Your task to perform on an android device: Go to eBay Image 0: 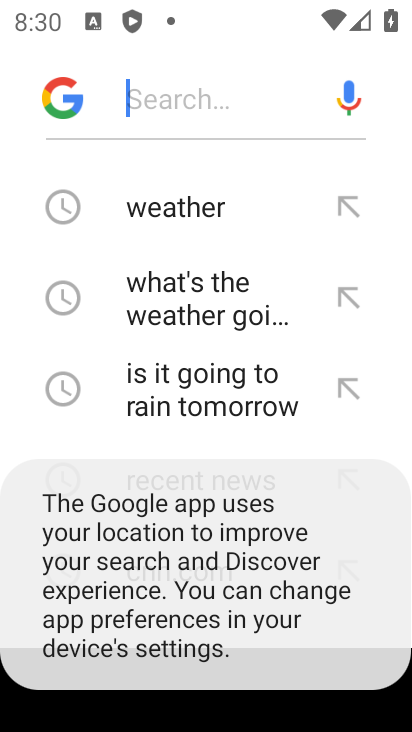
Step 0: press home button
Your task to perform on an android device: Go to eBay Image 1: 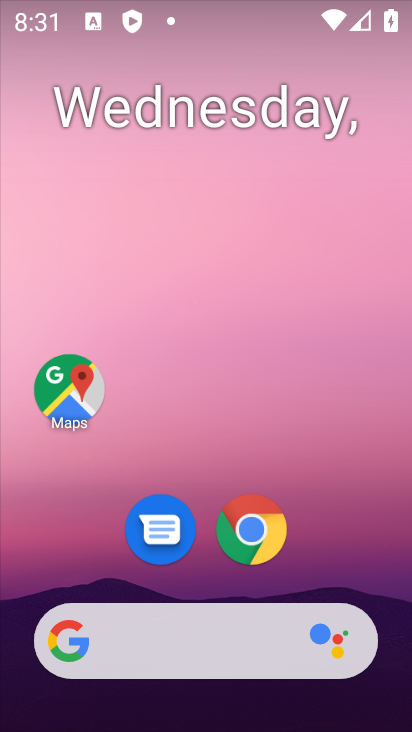
Step 1: click (253, 531)
Your task to perform on an android device: Go to eBay Image 2: 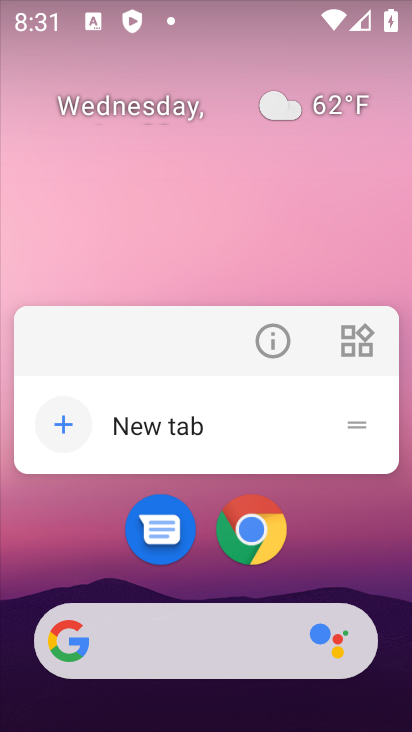
Step 2: click (257, 329)
Your task to perform on an android device: Go to eBay Image 3: 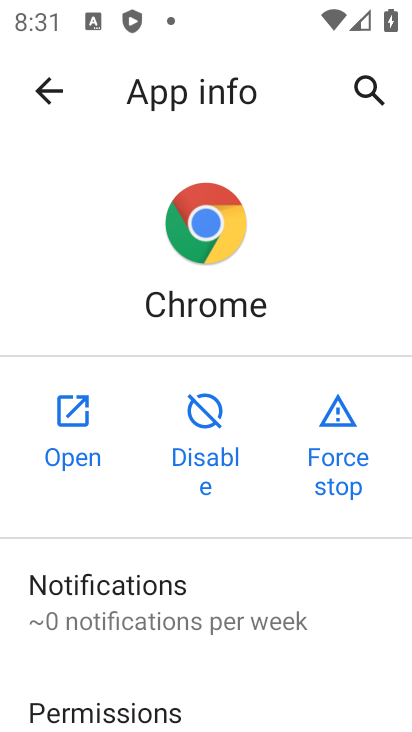
Step 3: click (83, 433)
Your task to perform on an android device: Go to eBay Image 4: 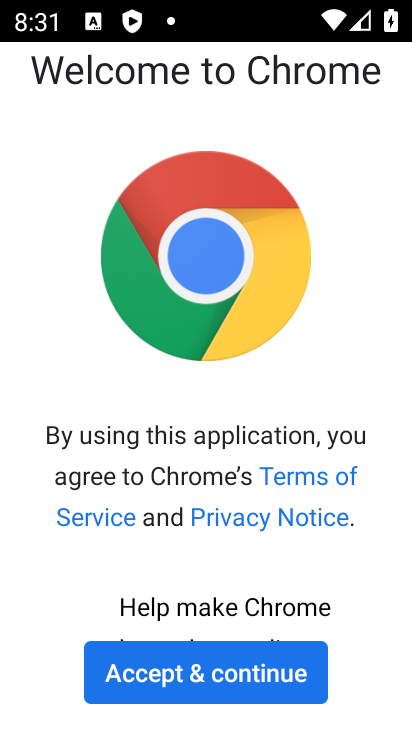
Step 4: click (257, 652)
Your task to perform on an android device: Go to eBay Image 5: 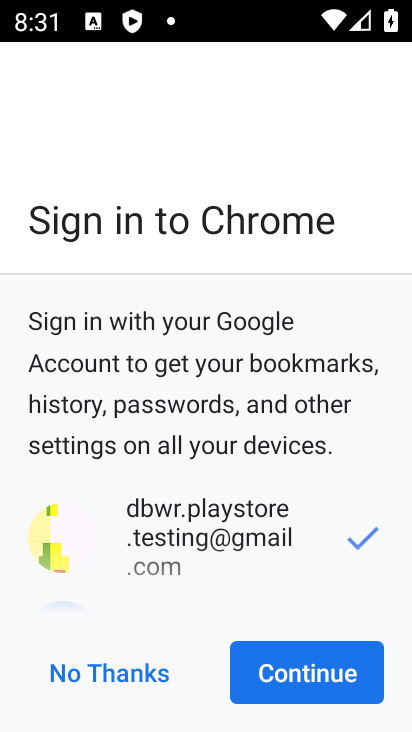
Step 5: click (272, 670)
Your task to perform on an android device: Go to eBay Image 6: 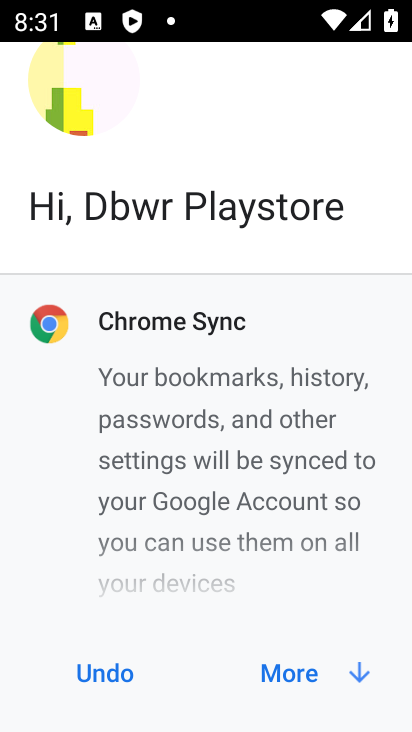
Step 6: click (277, 669)
Your task to perform on an android device: Go to eBay Image 7: 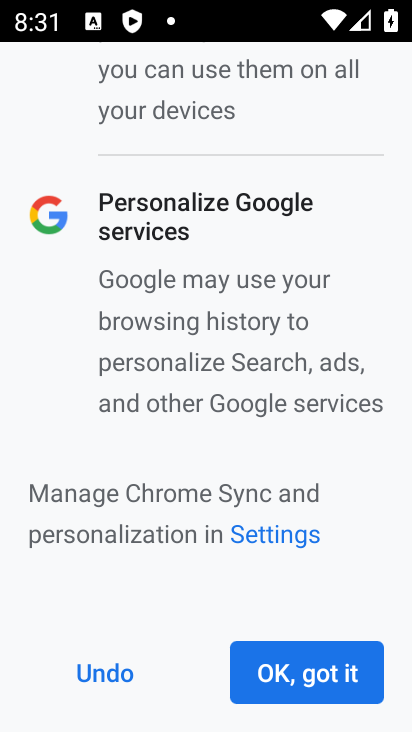
Step 7: click (278, 664)
Your task to perform on an android device: Go to eBay Image 8: 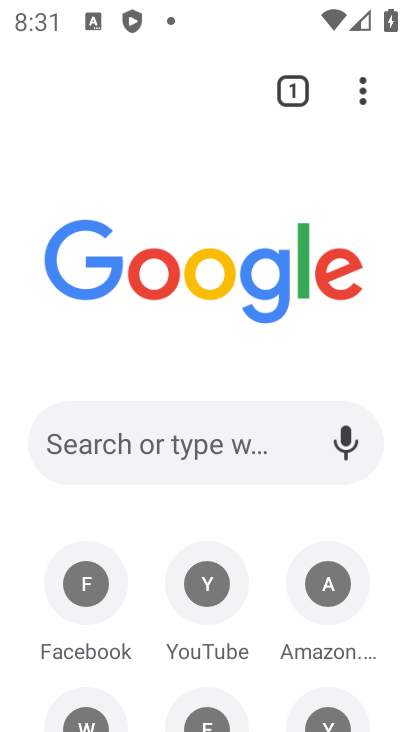
Step 8: click (147, 86)
Your task to perform on an android device: Go to eBay Image 9: 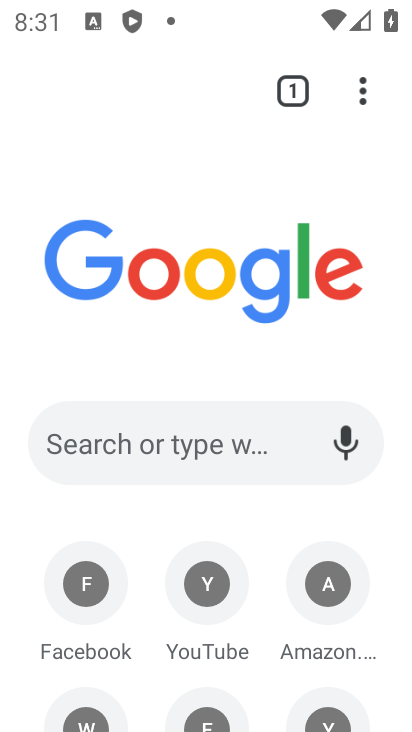
Step 9: click (188, 436)
Your task to perform on an android device: Go to eBay Image 10: 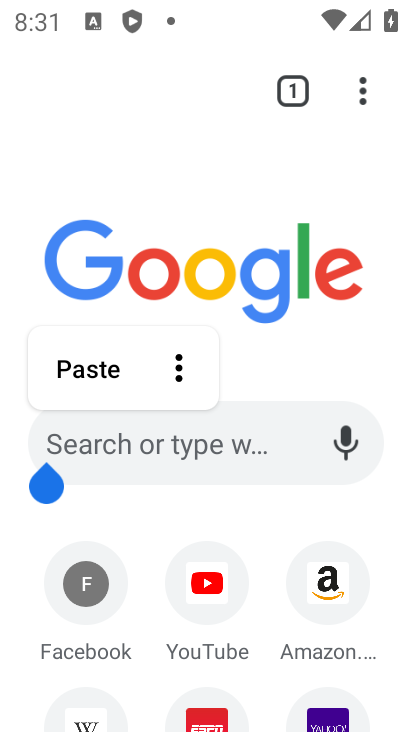
Step 10: click (74, 460)
Your task to perform on an android device: Go to eBay Image 11: 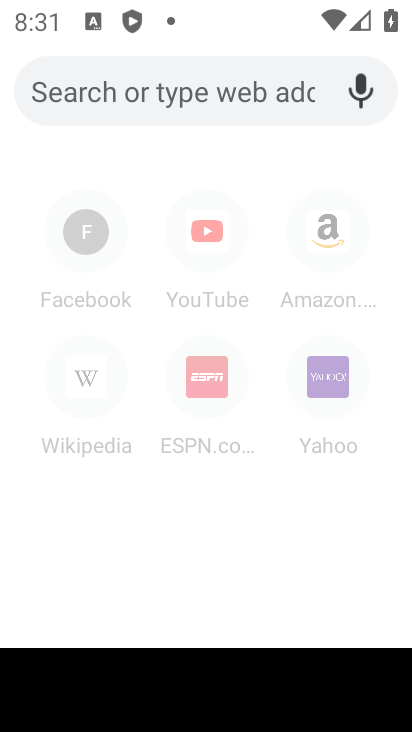
Step 11: type "eBay"
Your task to perform on an android device: Go to eBay Image 12: 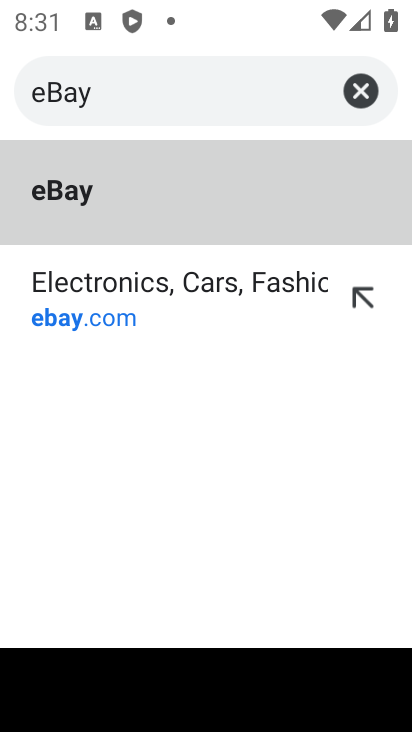
Step 12: click (259, 208)
Your task to perform on an android device: Go to eBay Image 13: 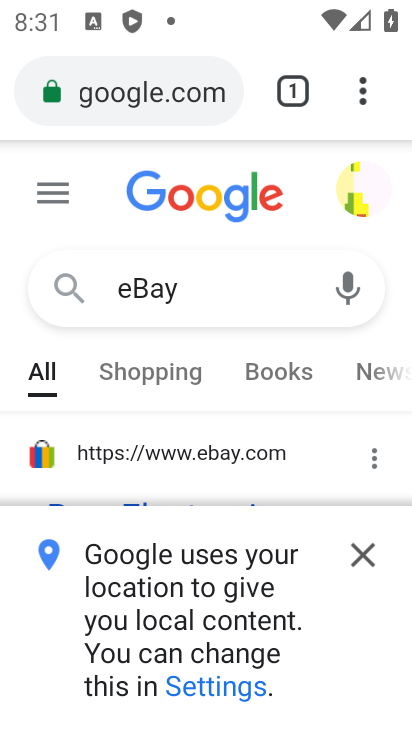
Step 13: task complete